Your task to perform on an android device: turn on notifications settings in the gmail app Image 0: 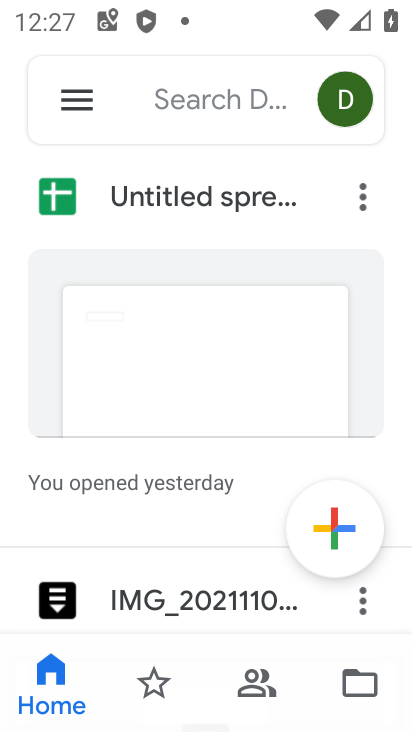
Step 0: press home button
Your task to perform on an android device: turn on notifications settings in the gmail app Image 1: 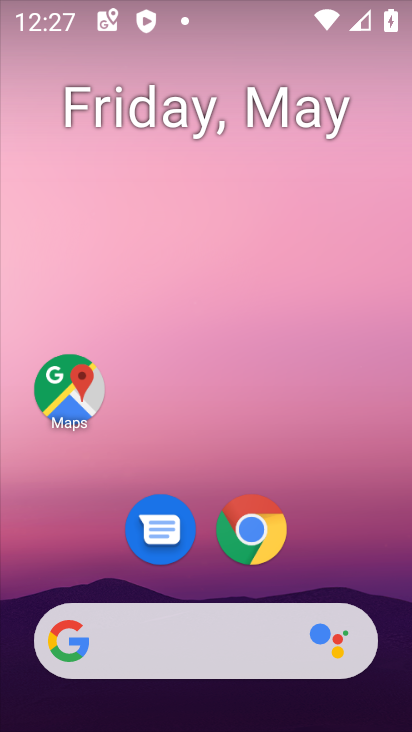
Step 1: drag from (346, 552) to (256, 4)
Your task to perform on an android device: turn on notifications settings in the gmail app Image 2: 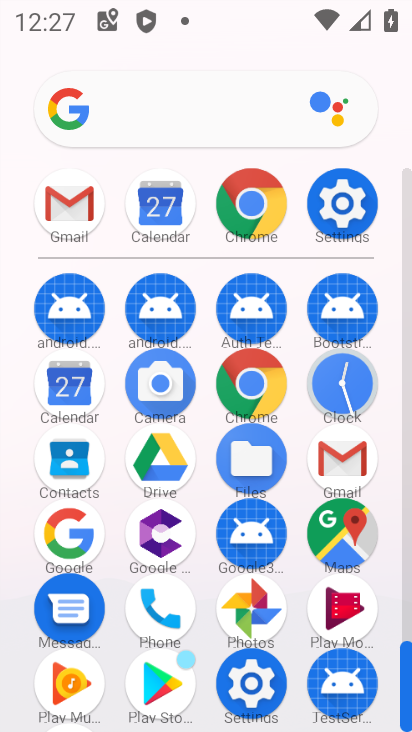
Step 2: click (61, 211)
Your task to perform on an android device: turn on notifications settings in the gmail app Image 3: 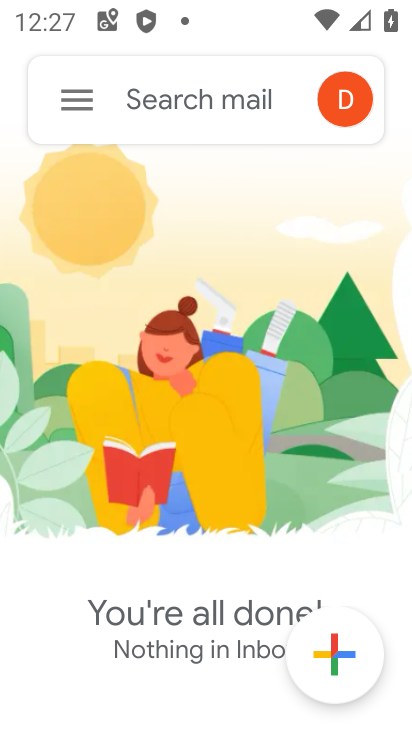
Step 3: click (70, 105)
Your task to perform on an android device: turn on notifications settings in the gmail app Image 4: 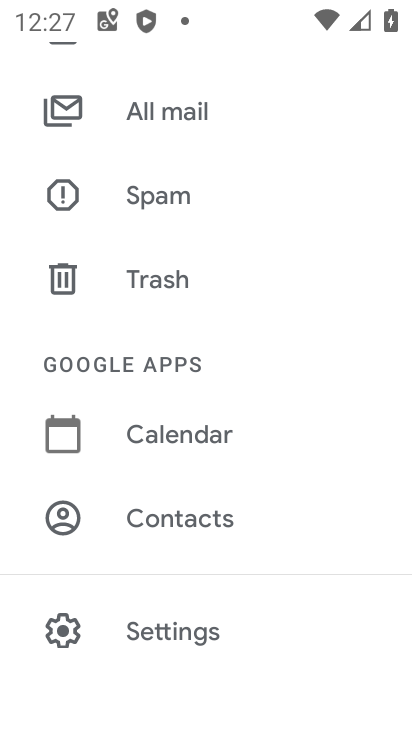
Step 4: drag from (215, 617) to (213, 257)
Your task to perform on an android device: turn on notifications settings in the gmail app Image 5: 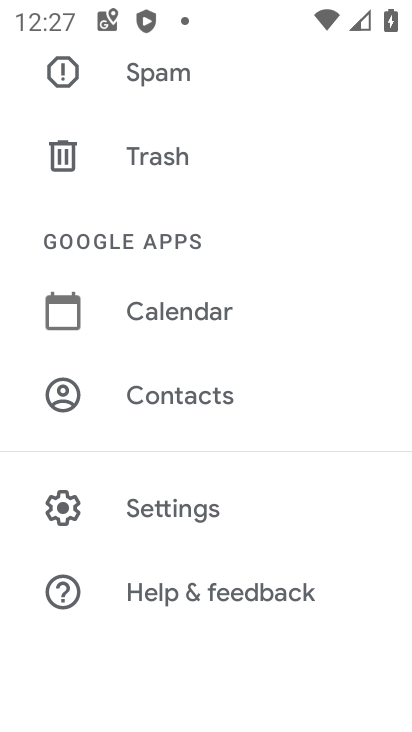
Step 5: click (249, 493)
Your task to perform on an android device: turn on notifications settings in the gmail app Image 6: 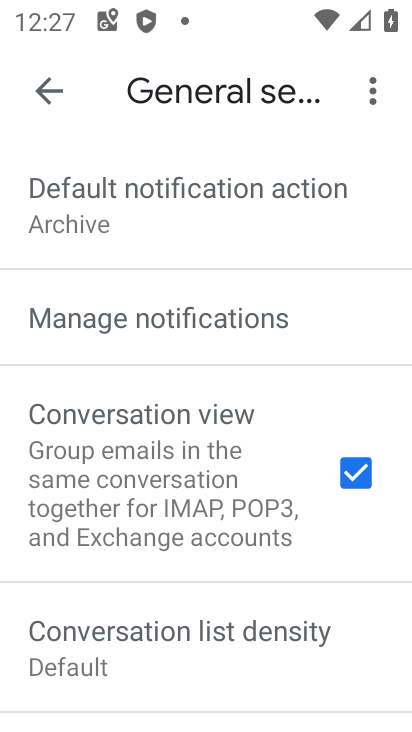
Step 6: click (143, 356)
Your task to perform on an android device: turn on notifications settings in the gmail app Image 7: 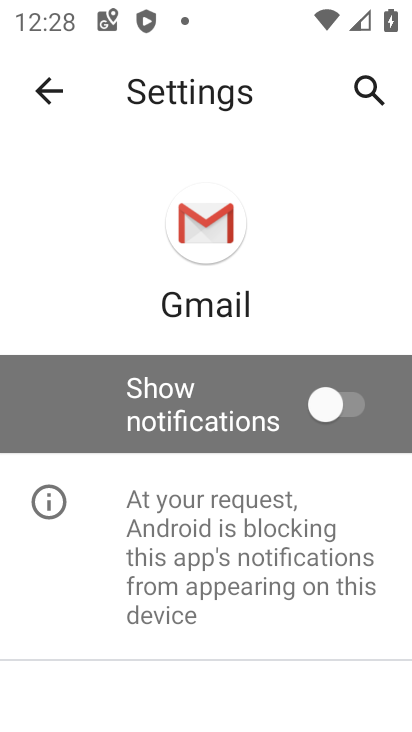
Step 7: task complete